Your task to perform on an android device: Open calendar and show me the fourth week of next month Image 0: 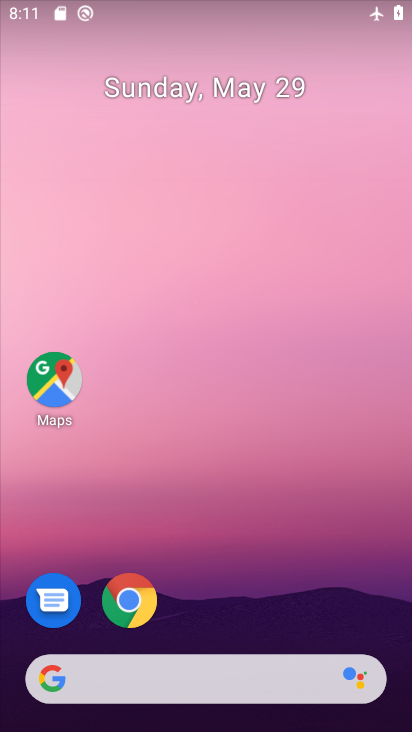
Step 0: drag from (222, 597) to (242, 0)
Your task to perform on an android device: Open calendar and show me the fourth week of next month Image 1: 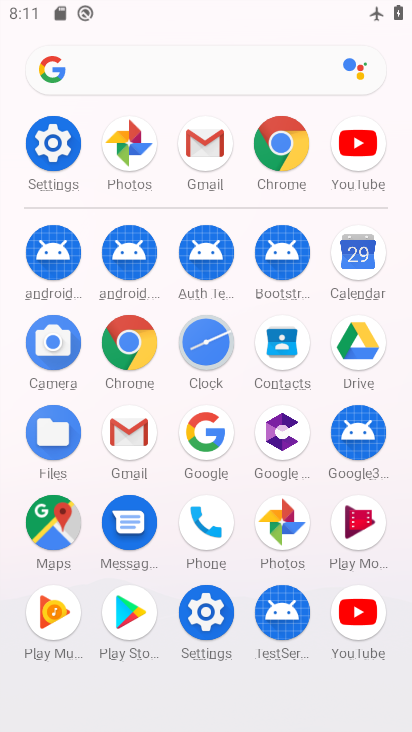
Step 1: click (351, 260)
Your task to perform on an android device: Open calendar and show me the fourth week of next month Image 2: 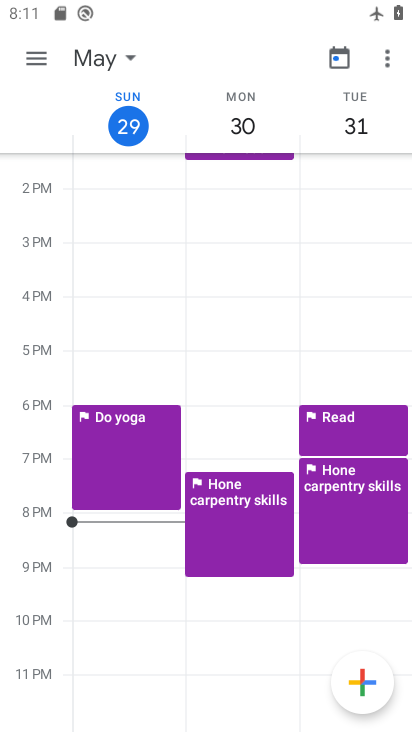
Step 2: click (33, 58)
Your task to perform on an android device: Open calendar and show me the fourth week of next month Image 3: 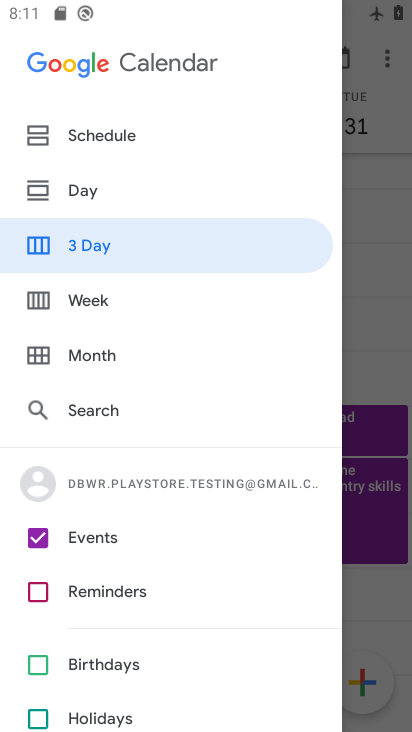
Step 3: click (112, 297)
Your task to perform on an android device: Open calendar and show me the fourth week of next month Image 4: 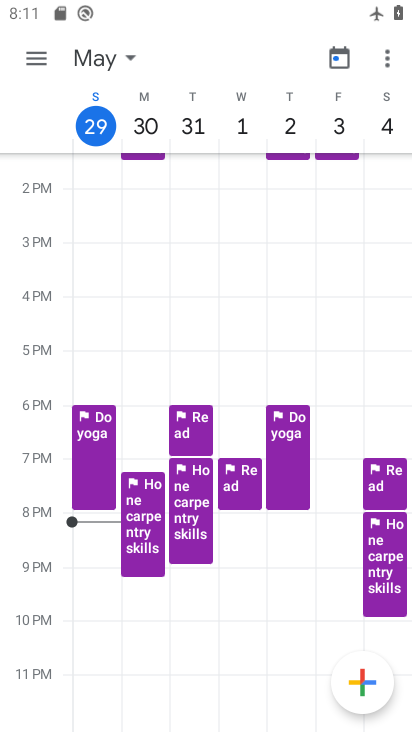
Step 4: task complete